Your task to perform on an android device: delete a single message in the gmail app Image 0: 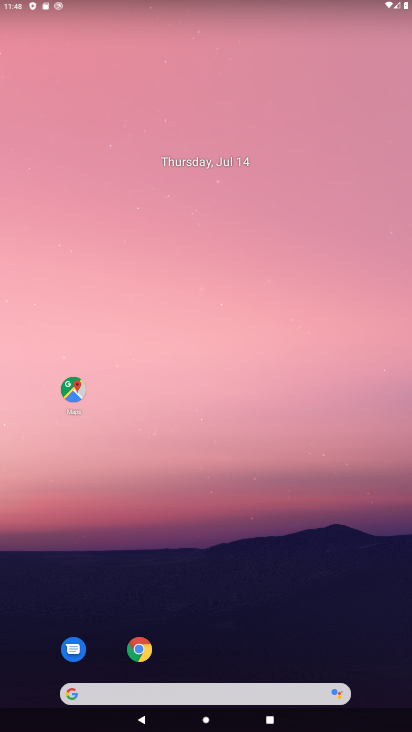
Step 0: drag from (255, 654) to (204, 315)
Your task to perform on an android device: delete a single message in the gmail app Image 1: 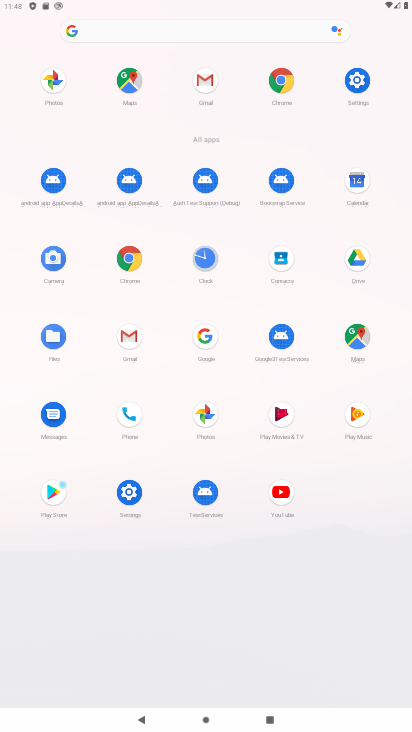
Step 1: click (202, 87)
Your task to perform on an android device: delete a single message in the gmail app Image 2: 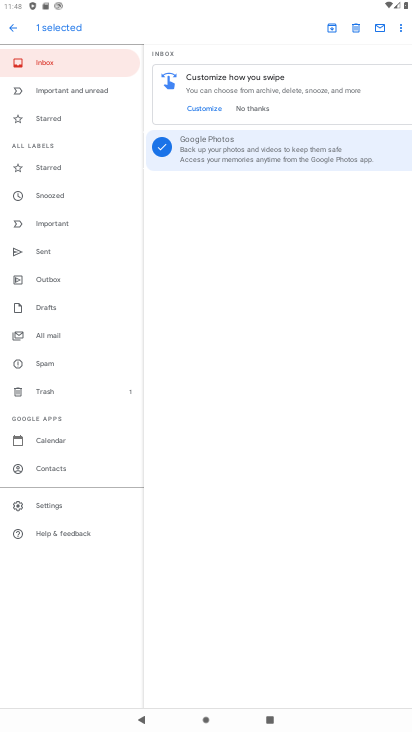
Step 2: click (359, 23)
Your task to perform on an android device: delete a single message in the gmail app Image 3: 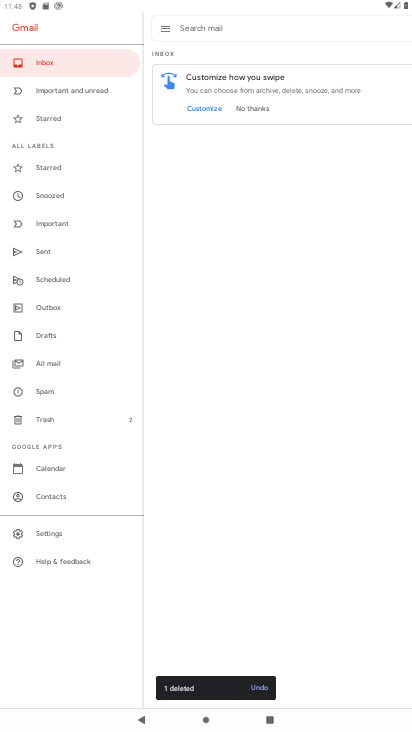
Step 3: task complete